Your task to perform on an android device: Open location settings Image 0: 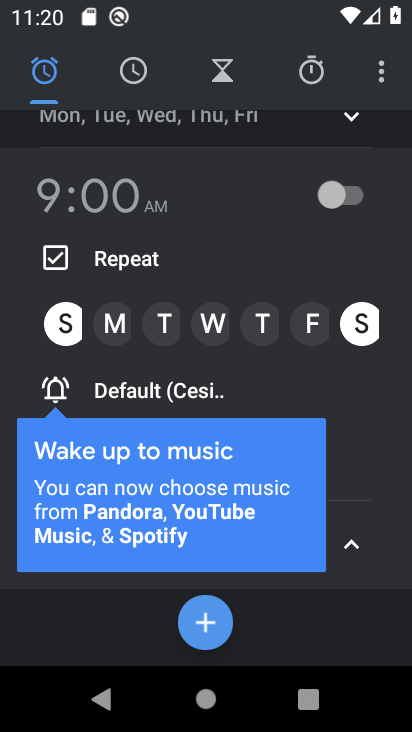
Step 0: press back button
Your task to perform on an android device: Open location settings Image 1: 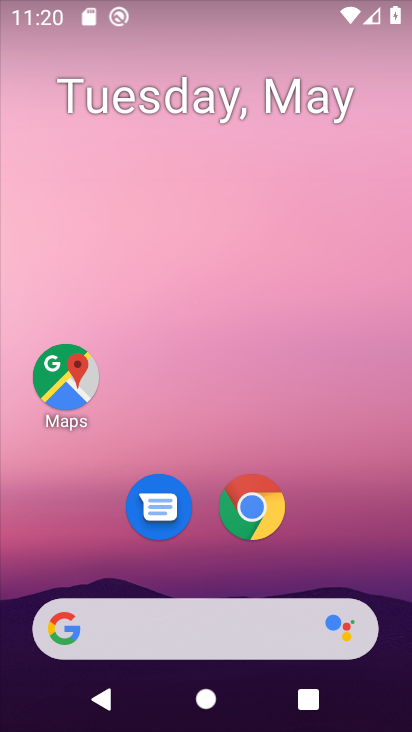
Step 1: drag from (259, 623) to (122, 26)
Your task to perform on an android device: Open location settings Image 2: 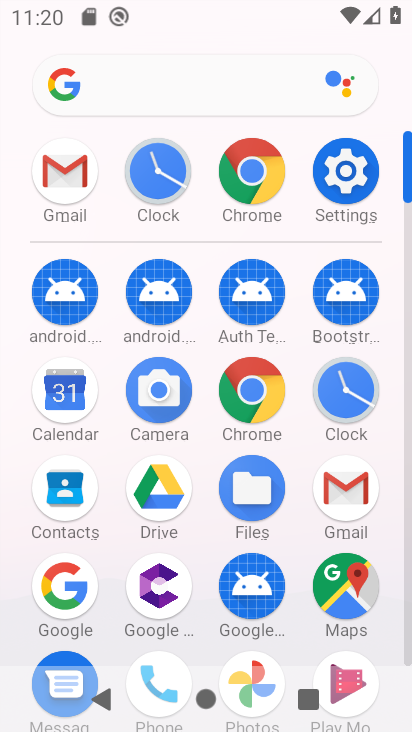
Step 2: click (345, 174)
Your task to perform on an android device: Open location settings Image 3: 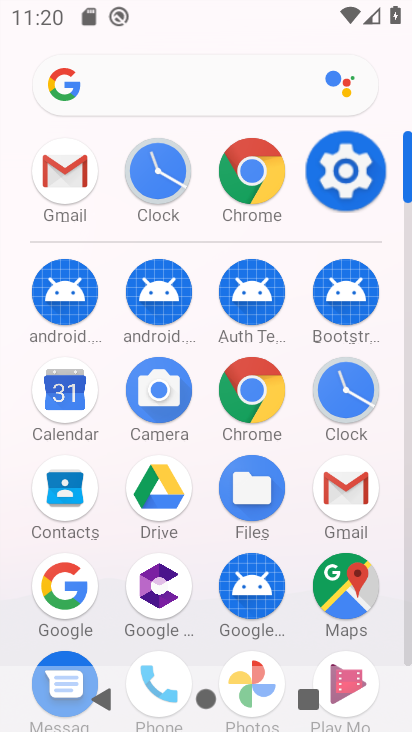
Step 3: click (344, 174)
Your task to perform on an android device: Open location settings Image 4: 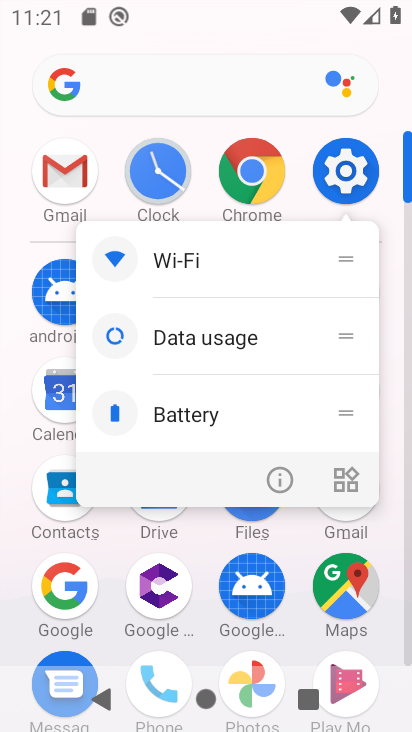
Step 4: click (378, 94)
Your task to perform on an android device: Open location settings Image 5: 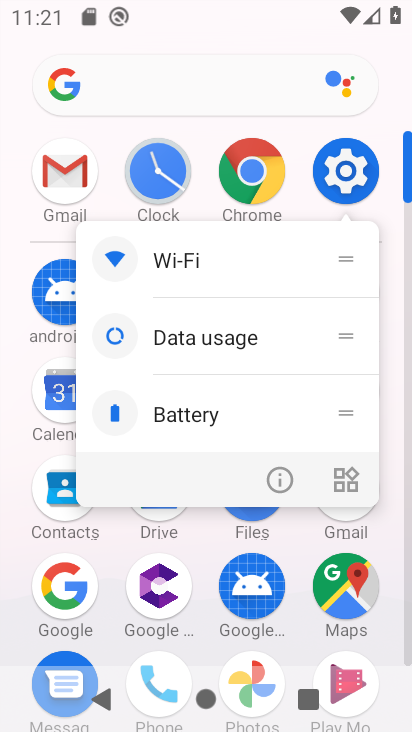
Step 5: click (379, 95)
Your task to perform on an android device: Open location settings Image 6: 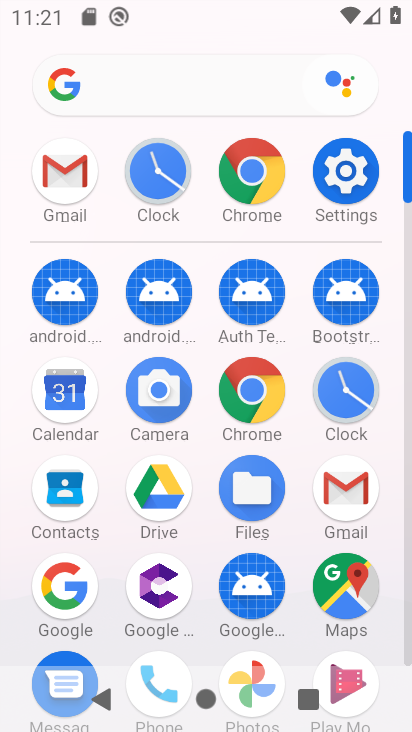
Step 6: click (387, 101)
Your task to perform on an android device: Open location settings Image 7: 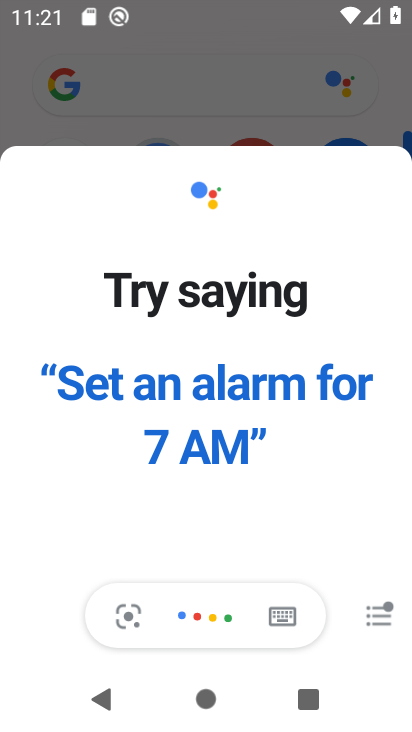
Step 7: click (379, 98)
Your task to perform on an android device: Open location settings Image 8: 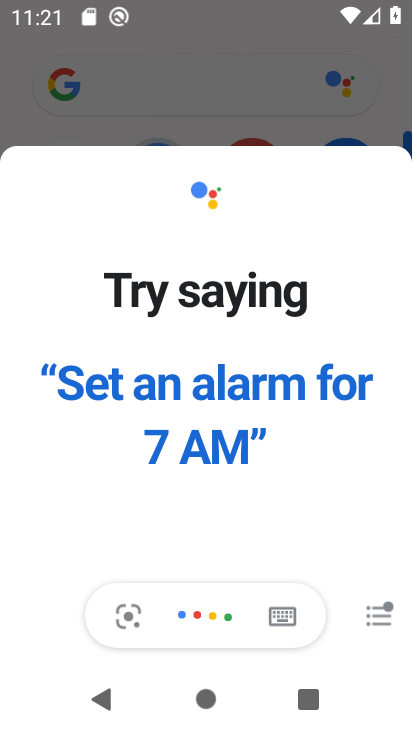
Step 8: click (379, 98)
Your task to perform on an android device: Open location settings Image 9: 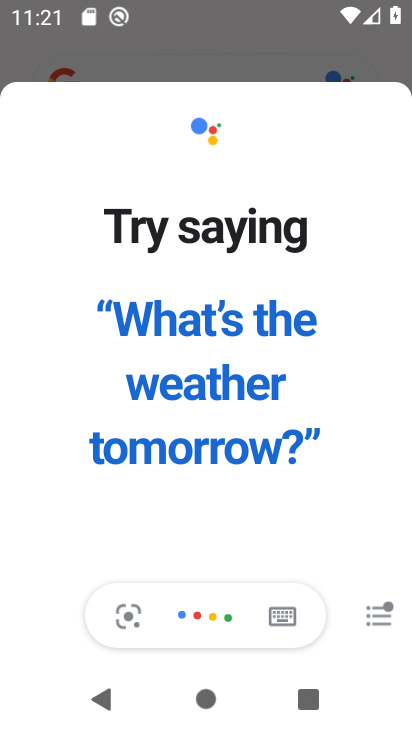
Step 9: click (376, 48)
Your task to perform on an android device: Open location settings Image 10: 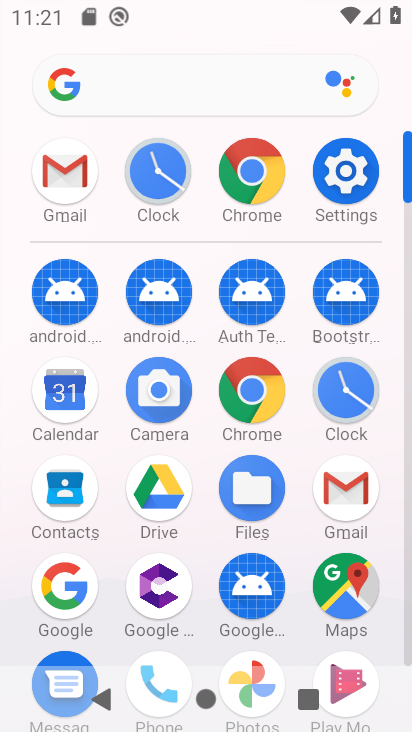
Step 10: click (345, 188)
Your task to perform on an android device: Open location settings Image 11: 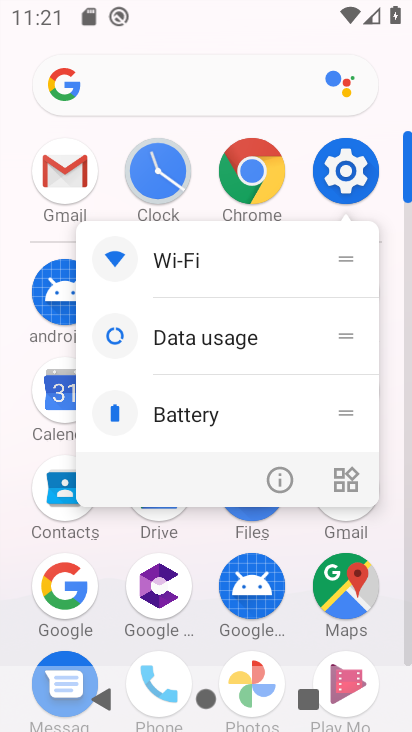
Step 11: click (349, 182)
Your task to perform on an android device: Open location settings Image 12: 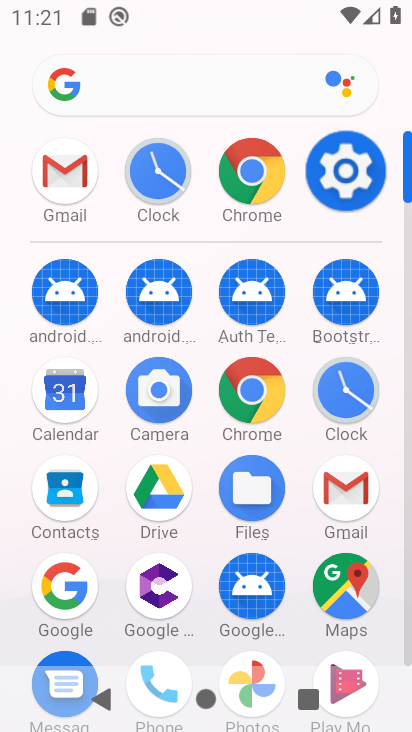
Step 12: click (335, 177)
Your task to perform on an android device: Open location settings Image 13: 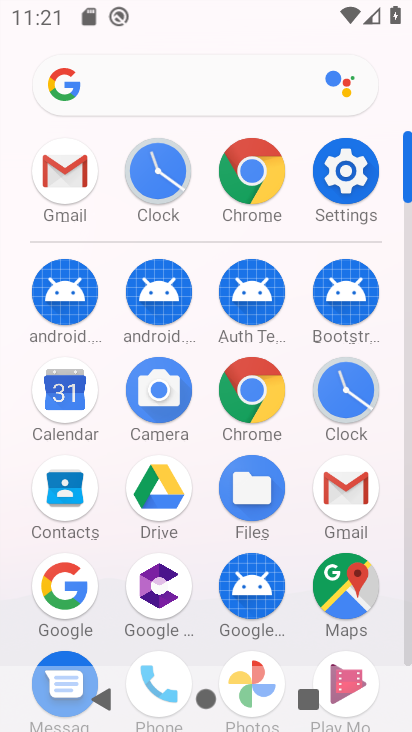
Step 13: click (335, 175)
Your task to perform on an android device: Open location settings Image 14: 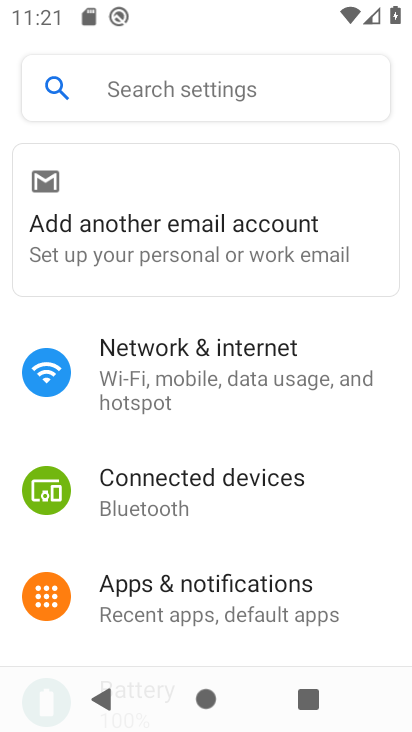
Step 14: click (342, 171)
Your task to perform on an android device: Open location settings Image 15: 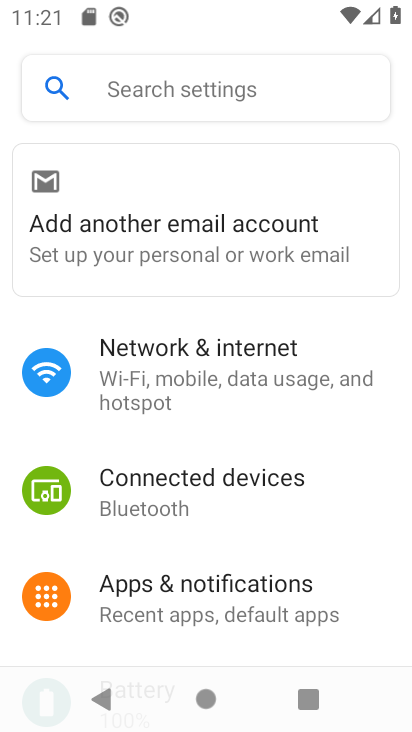
Step 15: drag from (217, 562) to (184, 153)
Your task to perform on an android device: Open location settings Image 16: 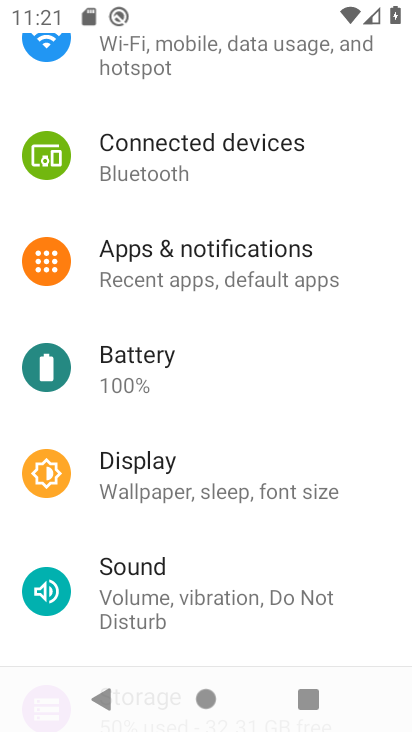
Step 16: drag from (218, 509) to (234, 200)
Your task to perform on an android device: Open location settings Image 17: 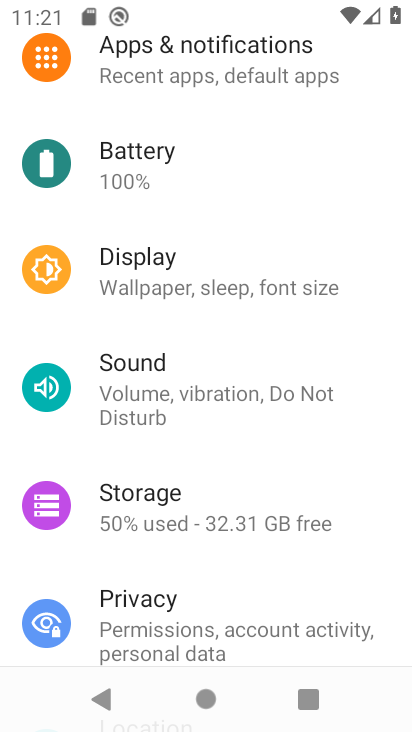
Step 17: drag from (203, 526) to (221, 56)
Your task to perform on an android device: Open location settings Image 18: 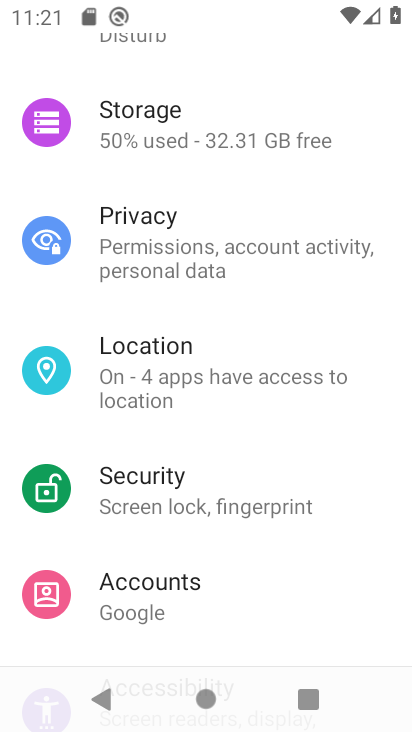
Step 18: drag from (180, 453) to (197, 172)
Your task to perform on an android device: Open location settings Image 19: 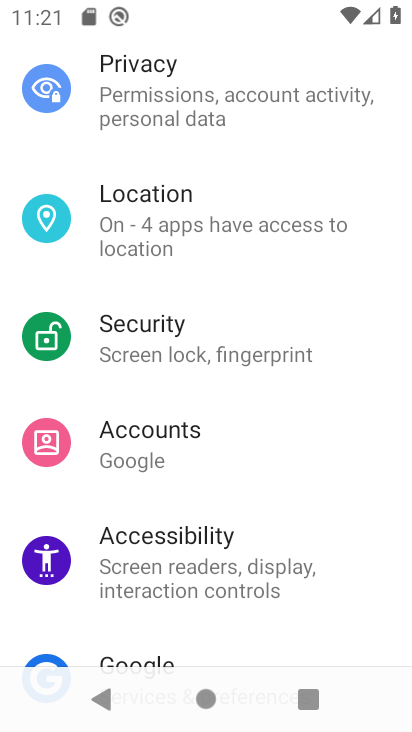
Step 19: drag from (212, 548) to (202, 135)
Your task to perform on an android device: Open location settings Image 20: 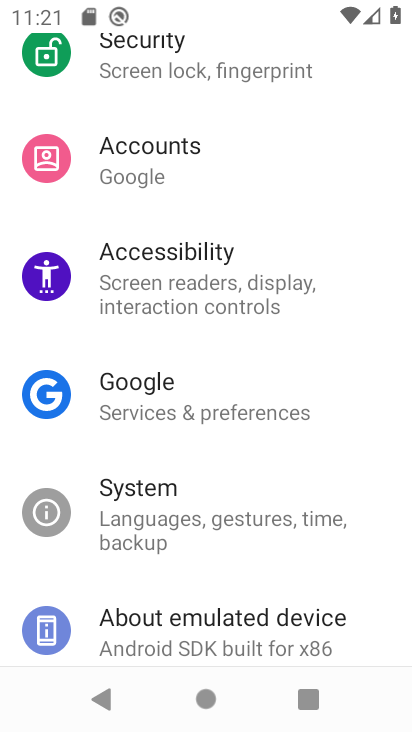
Step 20: drag from (201, 427) to (200, 132)
Your task to perform on an android device: Open location settings Image 21: 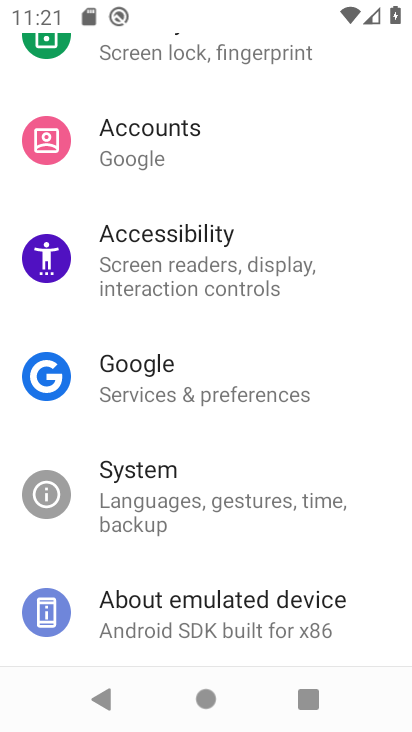
Step 21: drag from (194, 222) to (206, 494)
Your task to perform on an android device: Open location settings Image 22: 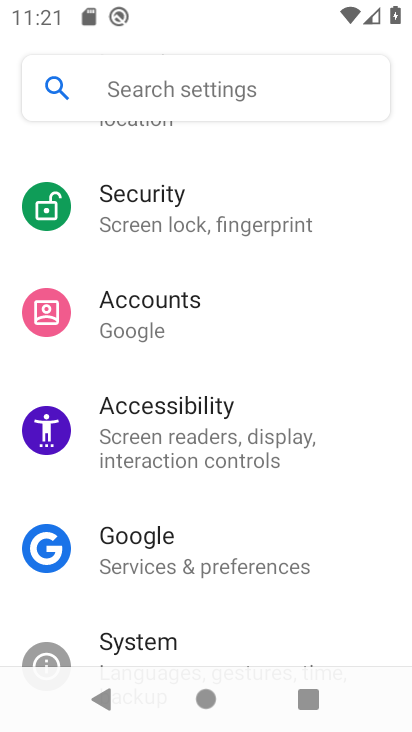
Step 22: drag from (194, 194) to (191, 566)
Your task to perform on an android device: Open location settings Image 23: 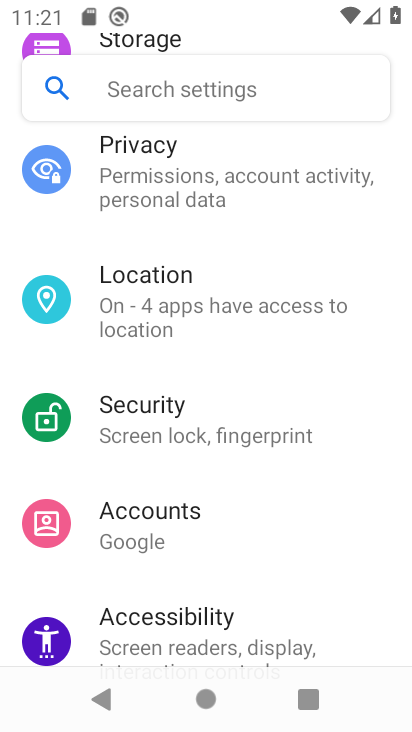
Step 23: drag from (143, 261) to (197, 632)
Your task to perform on an android device: Open location settings Image 24: 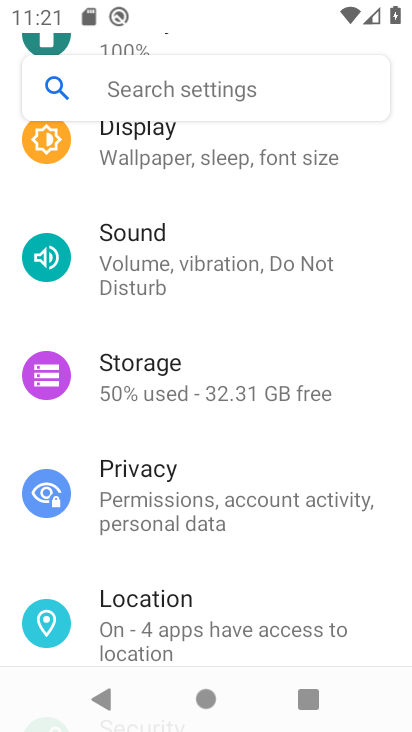
Step 24: drag from (175, 229) to (231, 587)
Your task to perform on an android device: Open location settings Image 25: 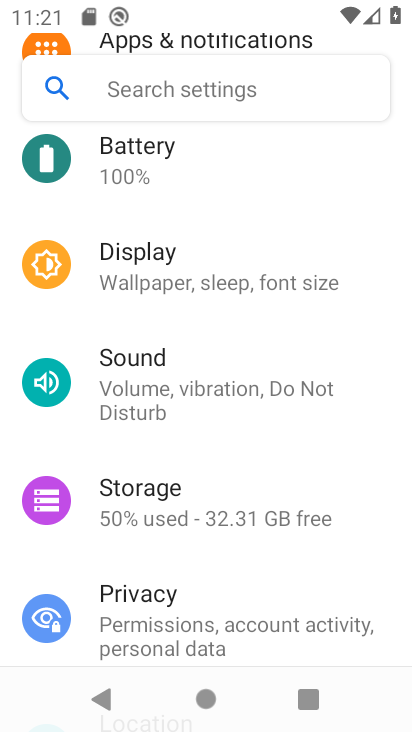
Step 25: drag from (218, 223) to (228, 545)
Your task to perform on an android device: Open location settings Image 26: 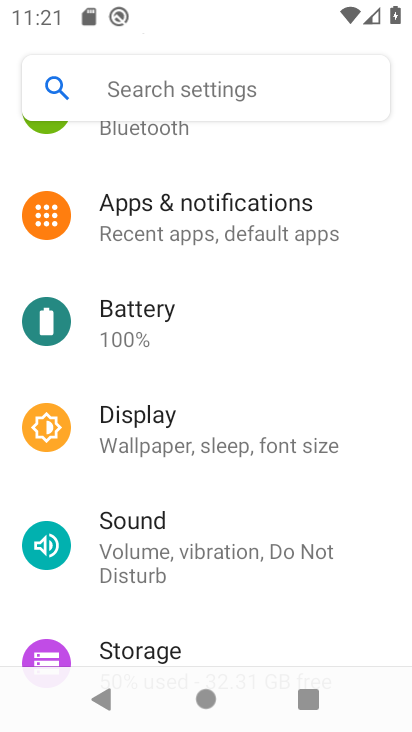
Step 26: drag from (184, 532) to (183, 220)
Your task to perform on an android device: Open location settings Image 27: 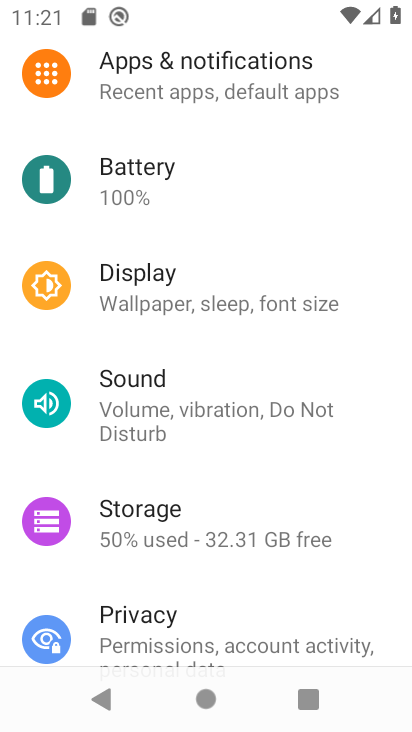
Step 27: drag from (221, 490) to (231, 163)
Your task to perform on an android device: Open location settings Image 28: 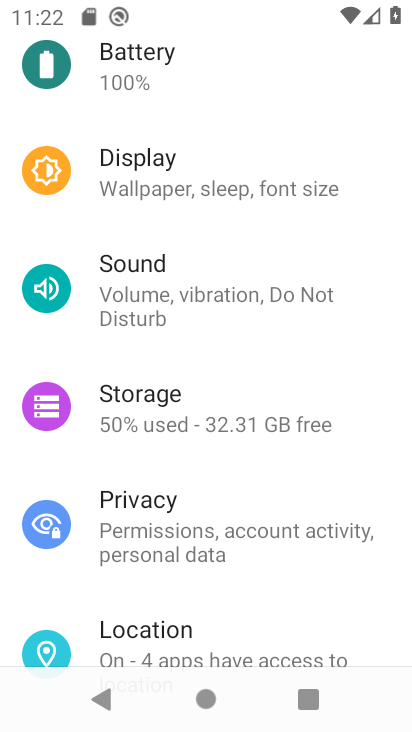
Step 28: drag from (190, 576) to (226, 90)
Your task to perform on an android device: Open location settings Image 29: 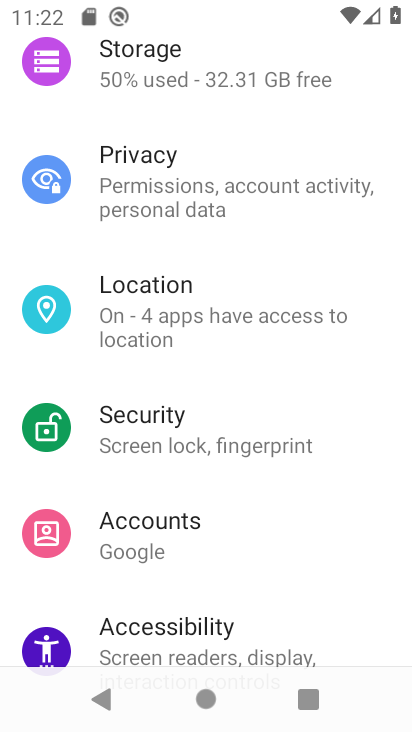
Step 29: click (158, 295)
Your task to perform on an android device: Open location settings Image 30: 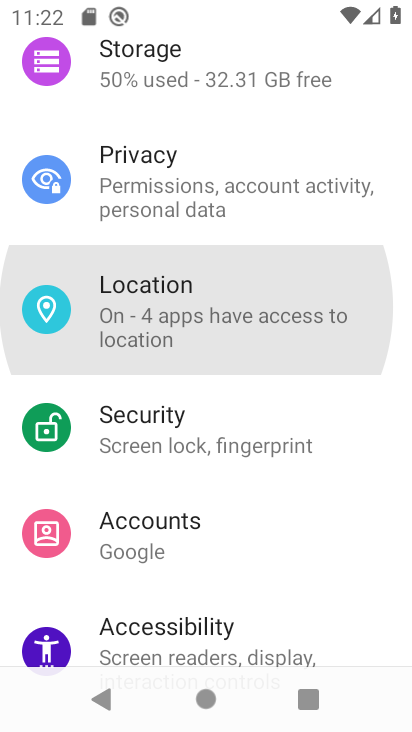
Step 30: click (157, 295)
Your task to perform on an android device: Open location settings Image 31: 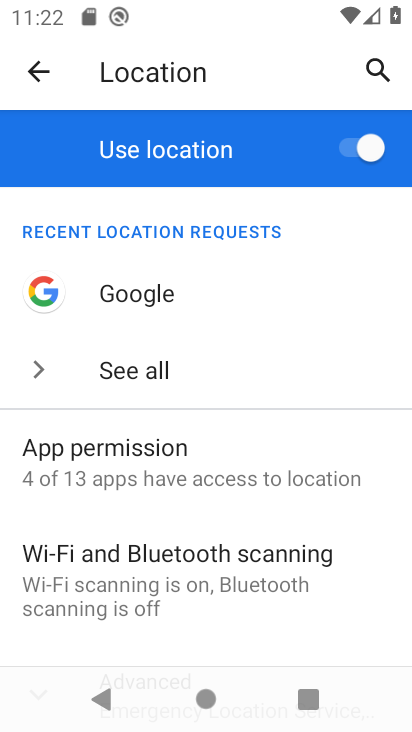
Step 31: task complete